Your task to perform on an android device: turn on location history Image 0: 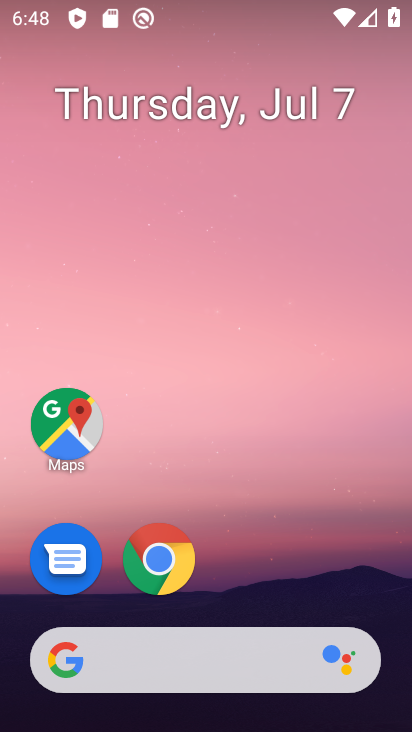
Step 0: drag from (286, 468) to (313, 49)
Your task to perform on an android device: turn on location history Image 1: 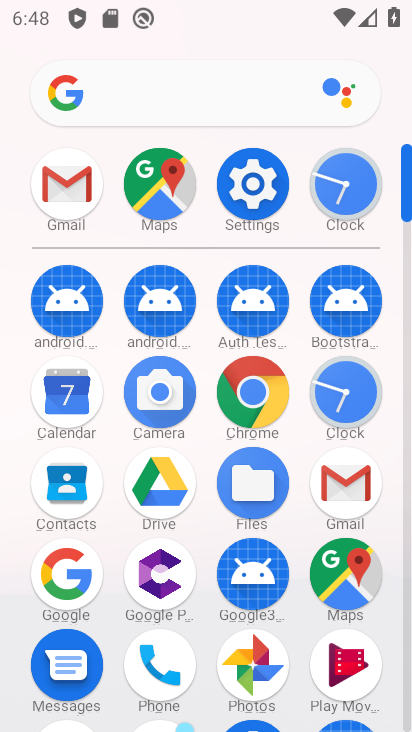
Step 1: click (267, 208)
Your task to perform on an android device: turn on location history Image 2: 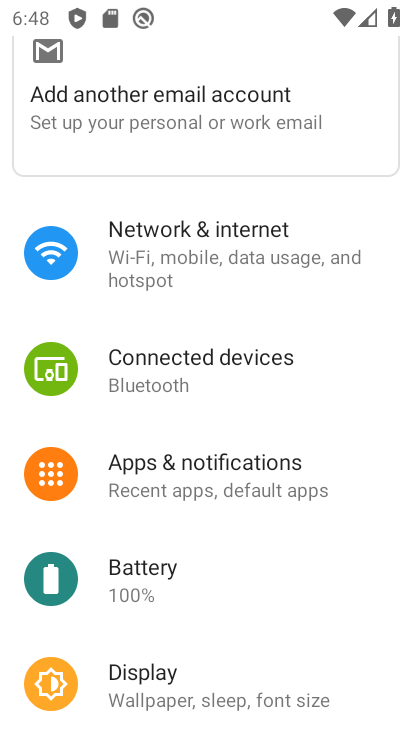
Step 2: drag from (223, 665) to (246, 209)
Your task to perform on an android device: turn on location history Image 3: 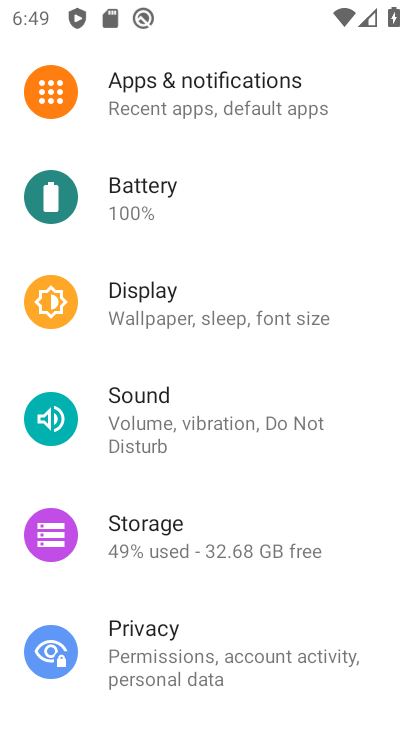
Step 3: drag from (213, 581) to (172, 118)
Your task to perform on an android device: turn on location history Image 4: 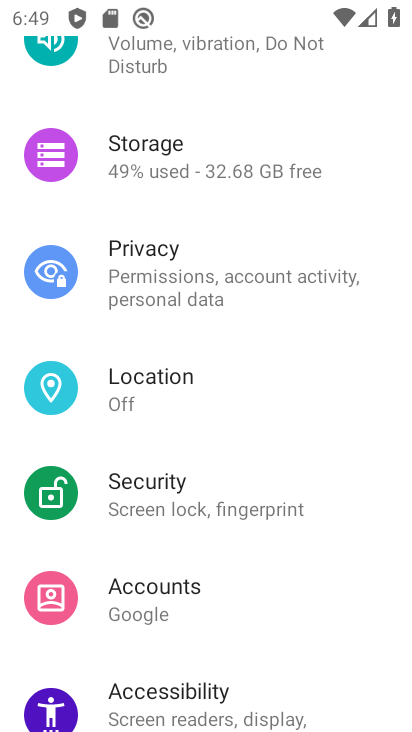
Step 4: click (169, 428)
Your task to perform on an android device: turn on location history Image 5: 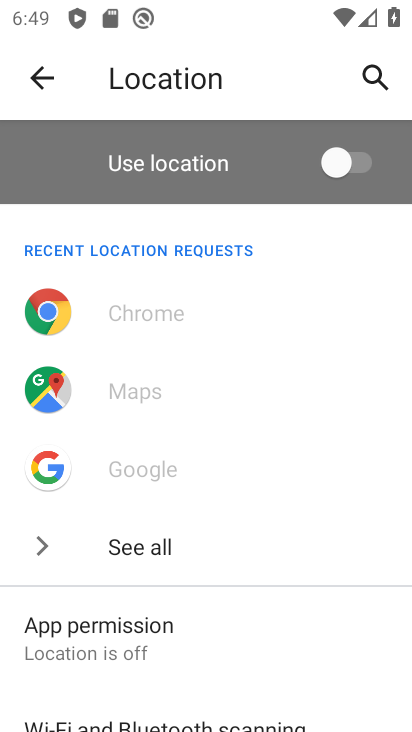
Step 5: drag from (254, 297) to (233, 68)
Your task to perform on an android device: turn on location history Image 6: 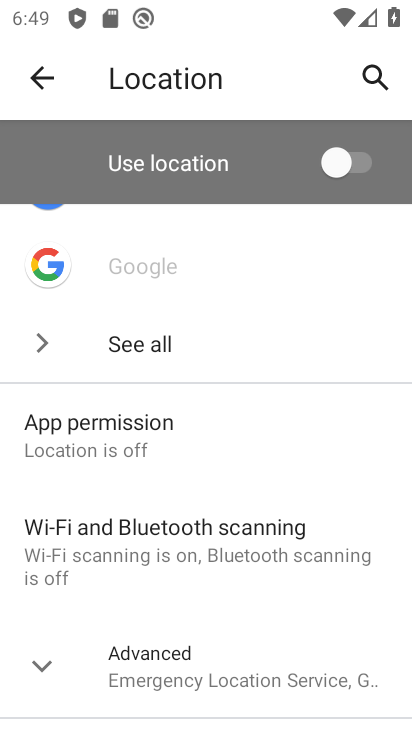
Step 6: click (130, 666)
Your task to perform on an android device: turn on location history Image 7: 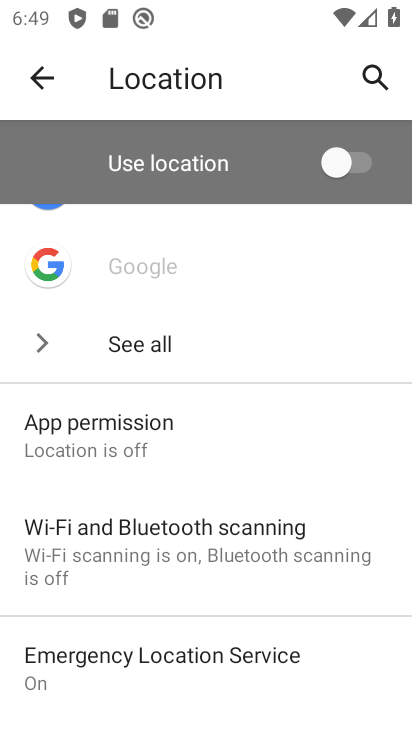
Step 7: drag from (130, 666) to (63, 138)
Your task to perform on an android device: turn on location history Image 8: 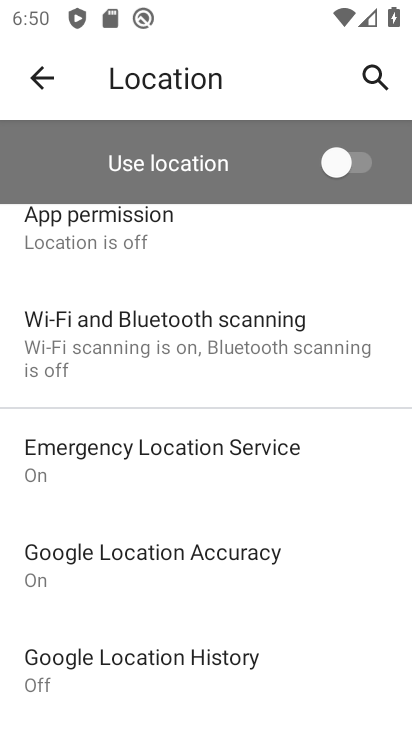
Step 8: click (206, 671)
Your task to perform on an android device: turn on location history Image 9: 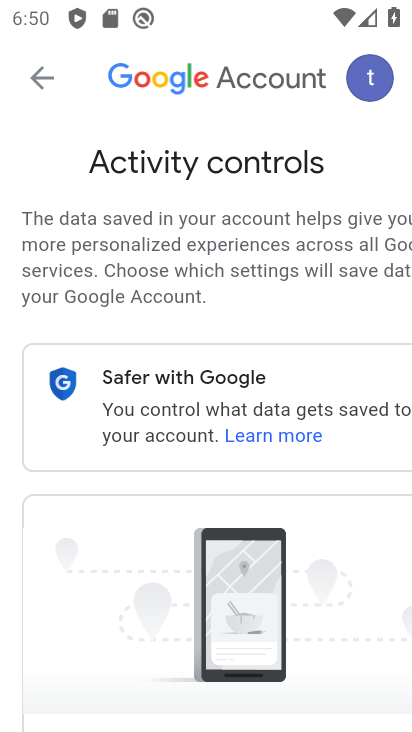
Step 9: drag from (341, 607) to (208, 165)
Your task to perform on an android device: turn on location history Image 10: 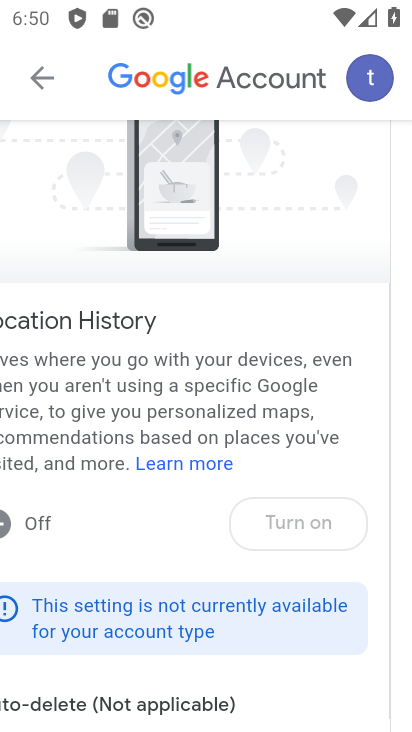
Step 10: drag from (189, 655) to (234, 447)
Your task to perform on an android device: turn on location history Image 11: 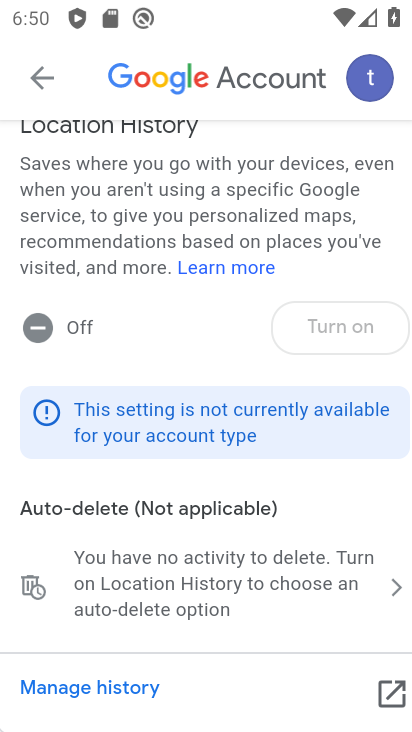
Step 11: click (378, 308)
Your task to perform on an android device: turn on location history Image 12: 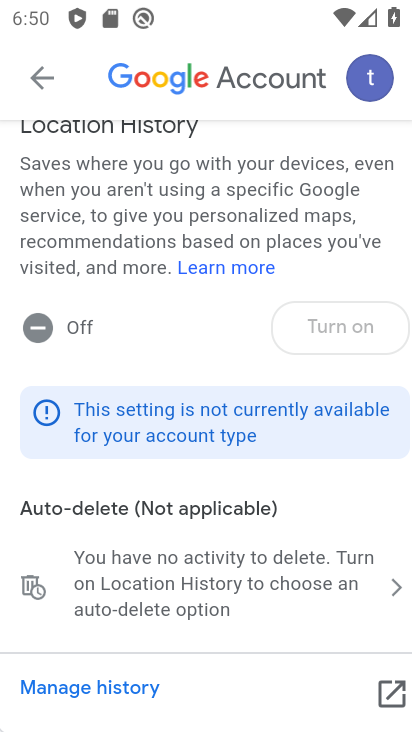
Step 12: click (378, 308)
Your task to perform on an android device: turn on location history Image 13: 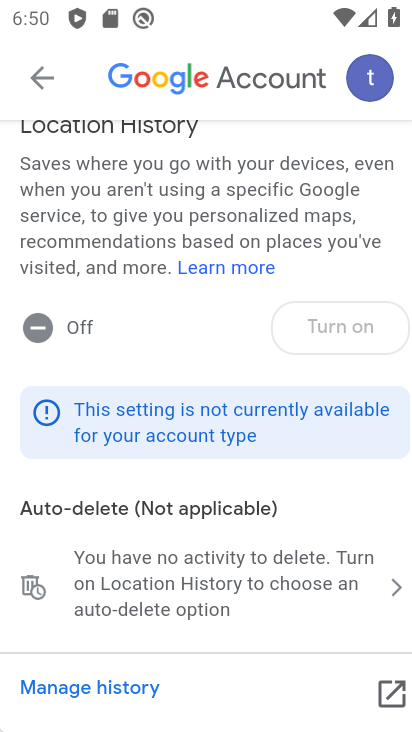
Step 13: click (378, 308)
Your task to perform on an android device: turn on location history Image 14: 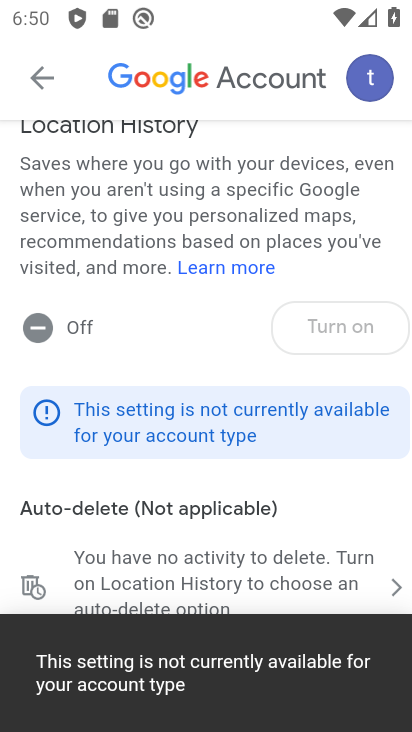
Step 14: click (378, 308)
Your task to perform on an android device: turn on location history Image 15: 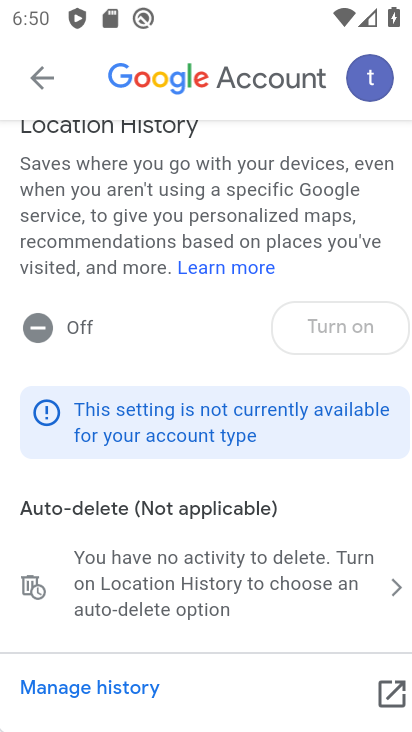
Step 15: task complete